Your task to perform on an android device: Open Google Chrome Image 0: 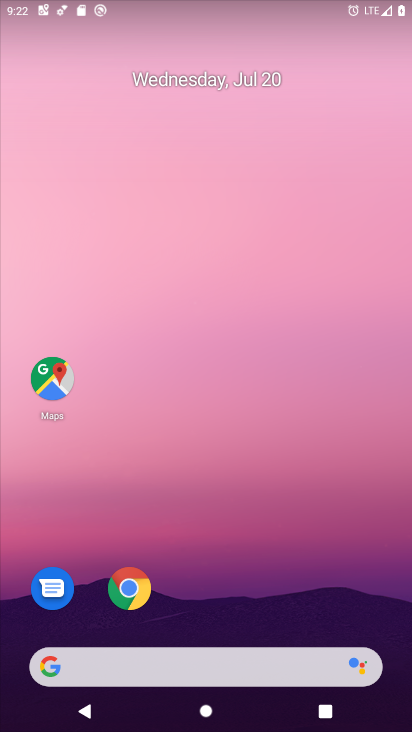
Step 0: press home button
Your task to perform on an android device: Open Google Chrome Image 1: 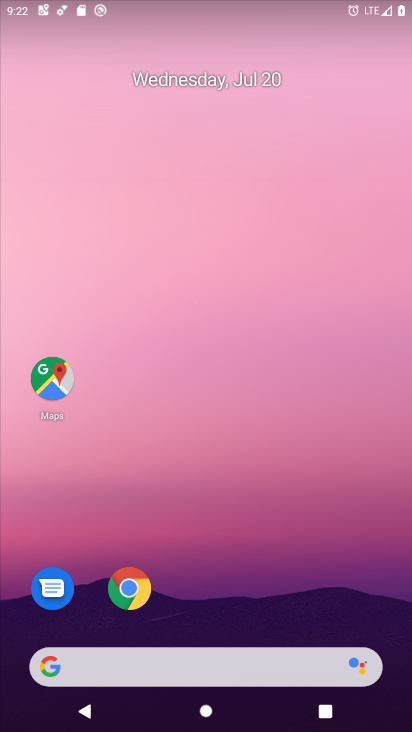
Step 1: click (129, 585)
Your task to perform on an android device: Open Google Chrome Image 2: 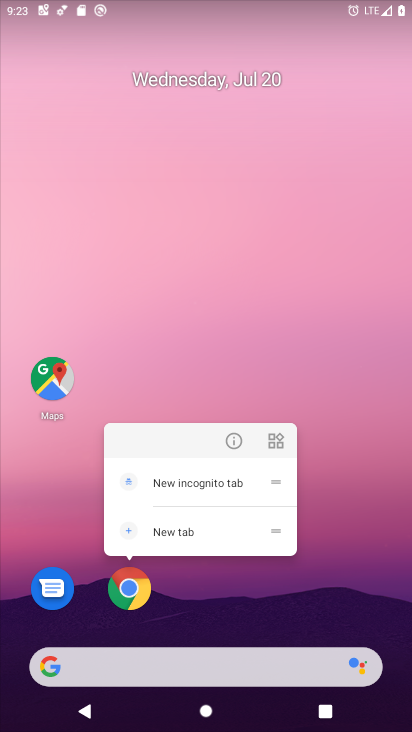
Step 2: click (126, 585)
Your task to perform on an android device: Open Google Chrome Image 3: 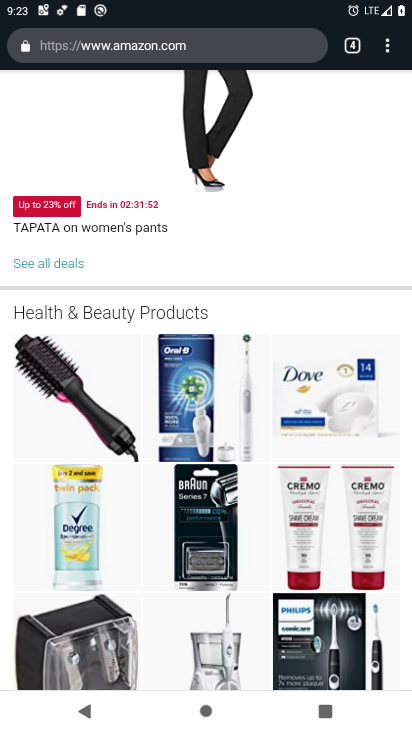
Step 3: click (355, 42)
Your task to perform on an android device: Open Google Chrome Image 4: 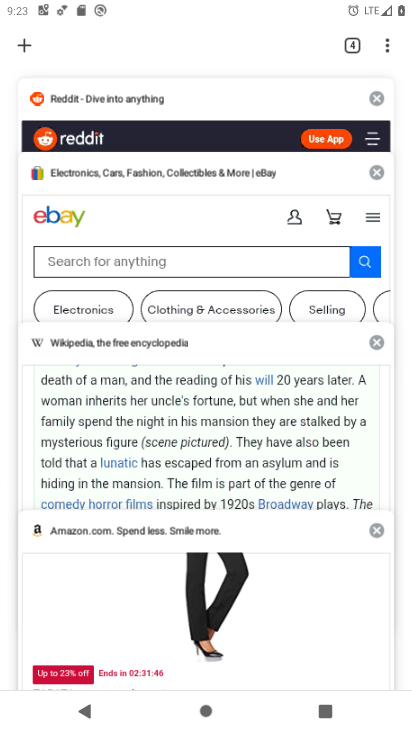
Step 4: click (129, 589)
Your task to perform on an android device: Open Google Chrome Image 5: 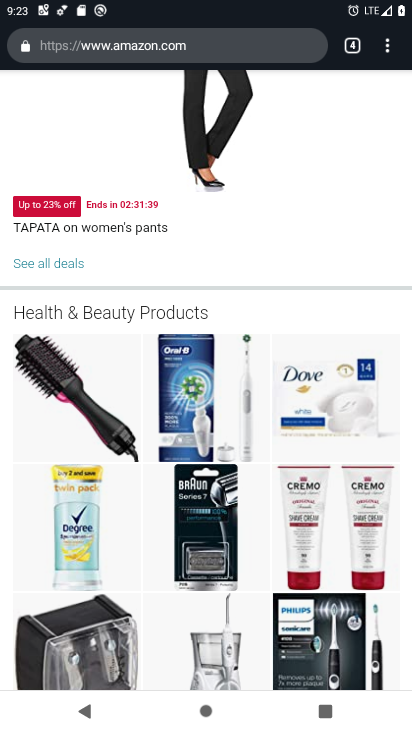
Step 5: task complete